Your task to perform on an android device: manage bookmarks in the chrome app Image 0: 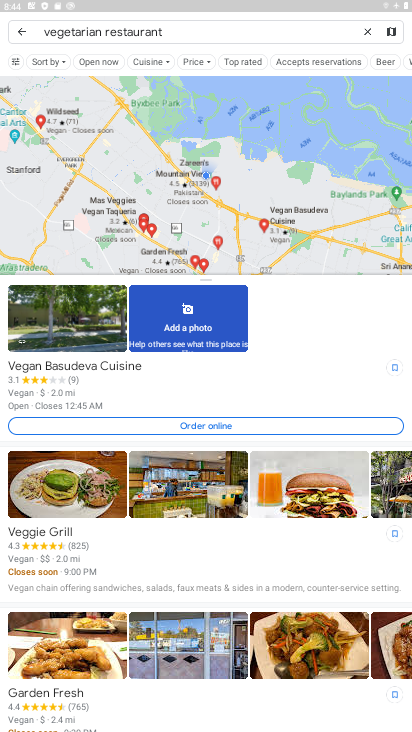
Step 0: press home button
Your task to perform on an android device: manage bookmarks in the chrome app Image 1: 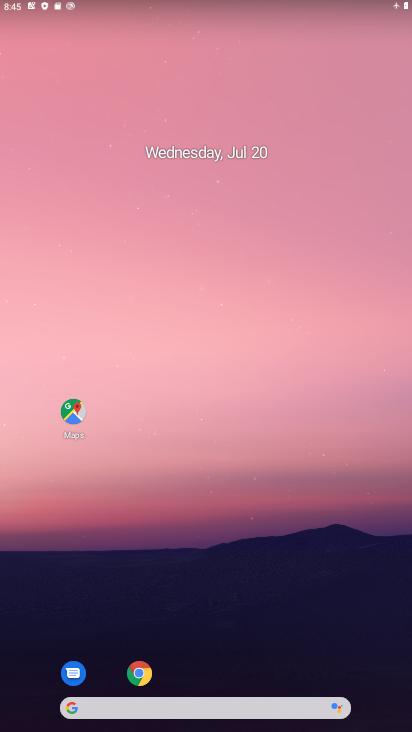
Step 1: click (142, 676)
Your task to perform on an android device: manage bookmarks in the chrome app Image 2: 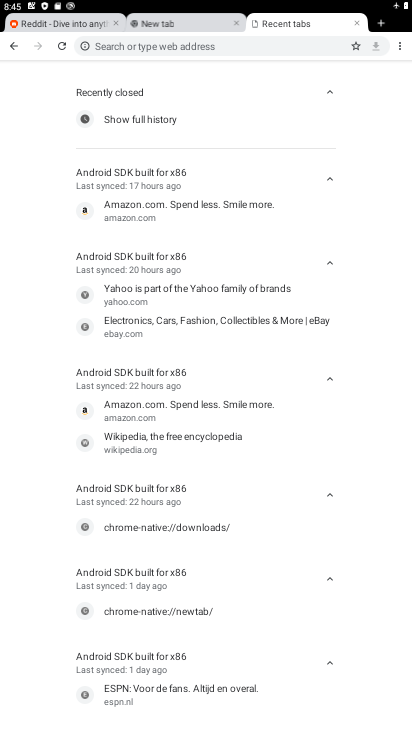
Step 2: click (400, 48)
Your task to perform on an android device: manage bookmarks in the chrome app Image 3: 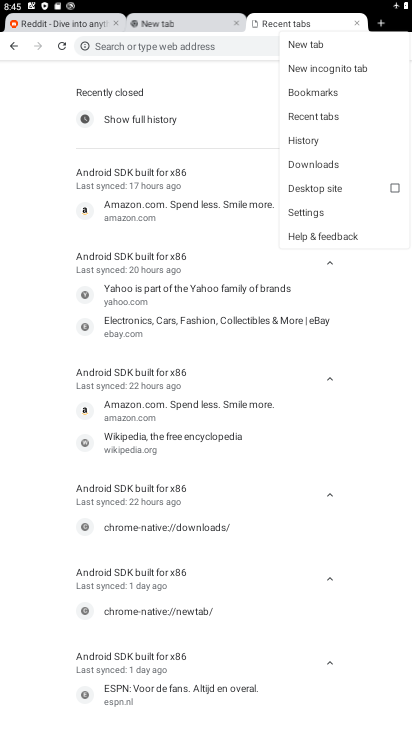
Step 3: click (314, 97)
Your task to perform on an android device: manage bookmarks in the chrome app Image 4: 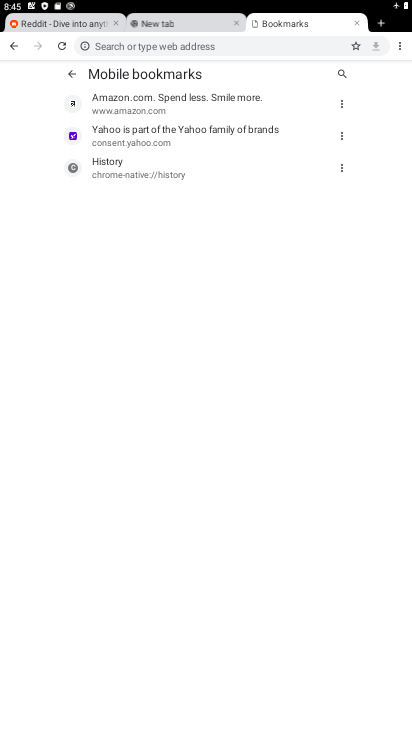
Step 4: click (342, 102)
Your task to perform on an android device: manage bookmarks in the chrome app Image 5: 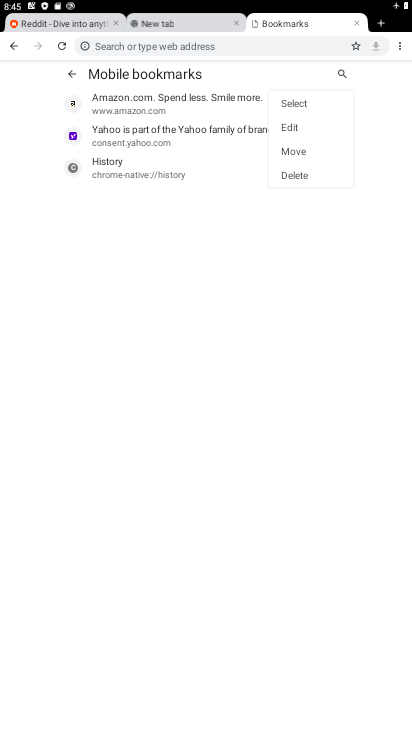
Step 5: click (284, 127)
Your task to perform on an android device: manage bookmarks in the chrome app Image 6: 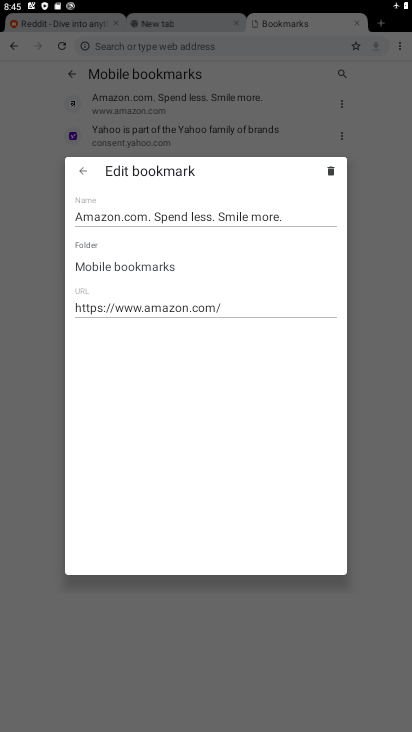
Step 6: click (108, 222)
Your task to perform on an android device: manage bookmarks in the chrome app Image 7: 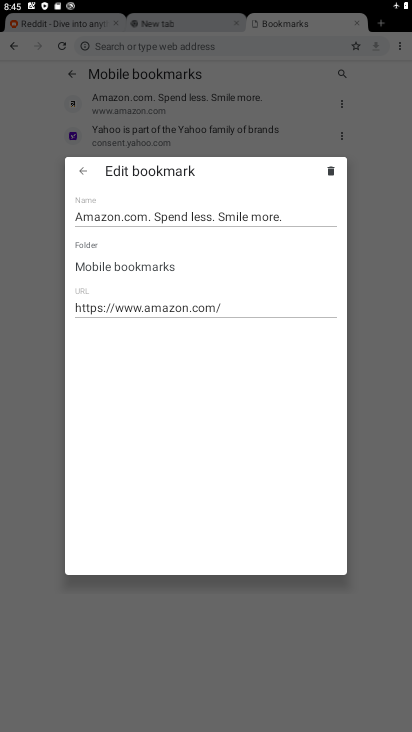
Step 7: click (108, 222)
Your task to perform on an android device: manage bookmarks in the chrome app Image 8: 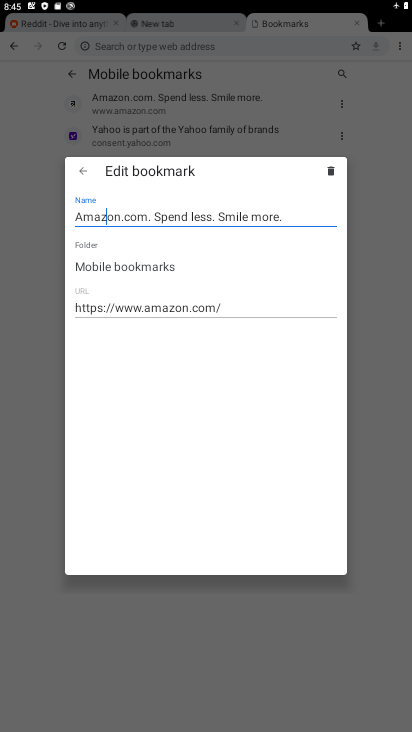
Step 8: click (108, 222)
Your task to perform on an android device: manage bookmarks in the chrome app Image 9: 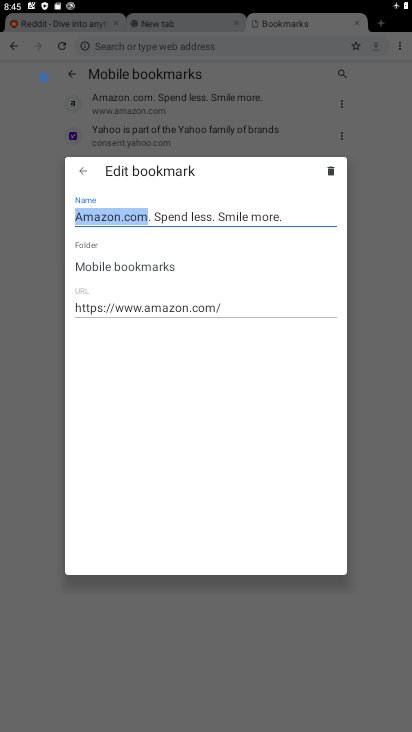
Step 9: click (108, 222)
Your task to perform on an android device: manage bookmarks in the chrome app Image 10: 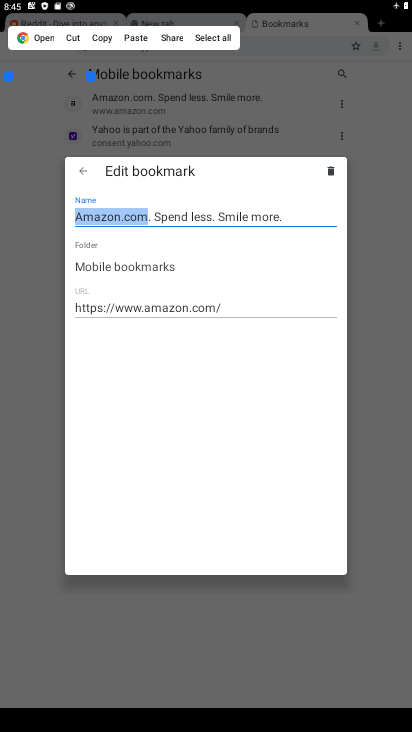
Step 10: click (75, 39)
Your task to perform on an android device: manage bookmarks in the chrome app Image 11: 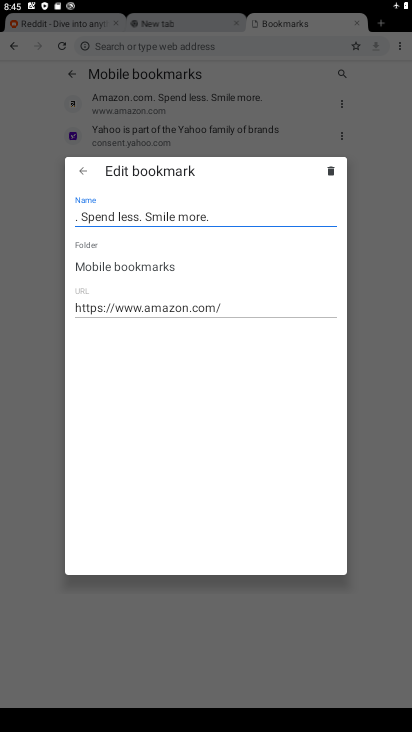
Step 11: click (377, 278)
Your task to perform on an android device: manage bookmarks in the chrome app Image 12: 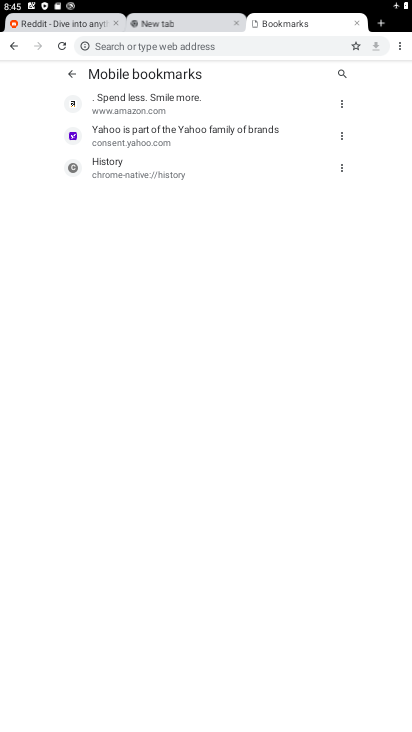
Step 12: task complete